Your task to perform on an android device: toggle location history Image 0: 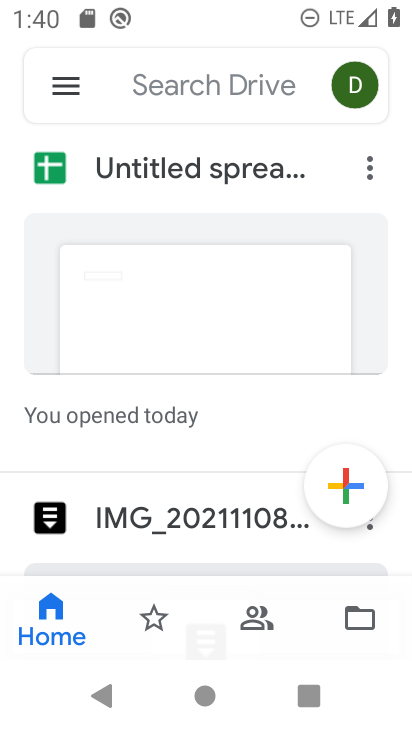
Step 0: press home button
Your task to perform on an android device: toggle location history Image 1: 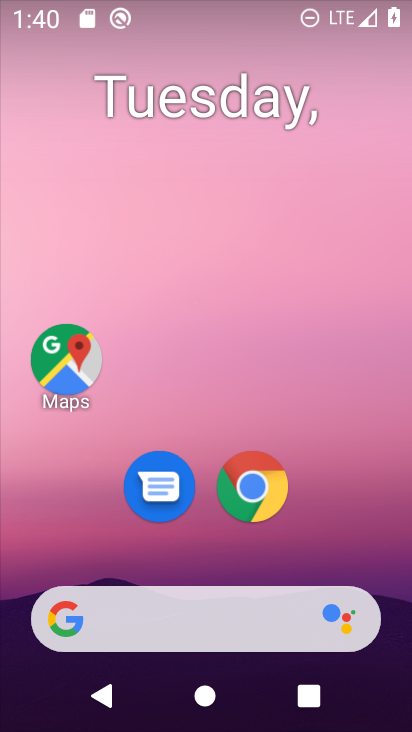
Step 1: drag from (246, 549) to (264, 156)
Your task to perform on an android device: toggle location history Image 2: 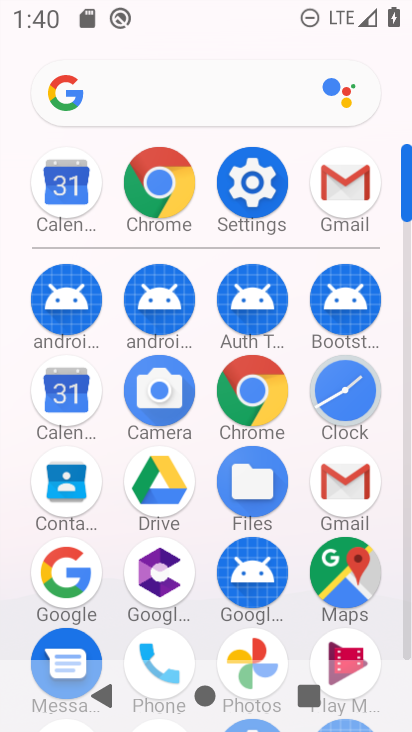
Step 2: drag from (194, 255) to (213, 117)
Your task to perform on an android device: toggle location history Image 3: 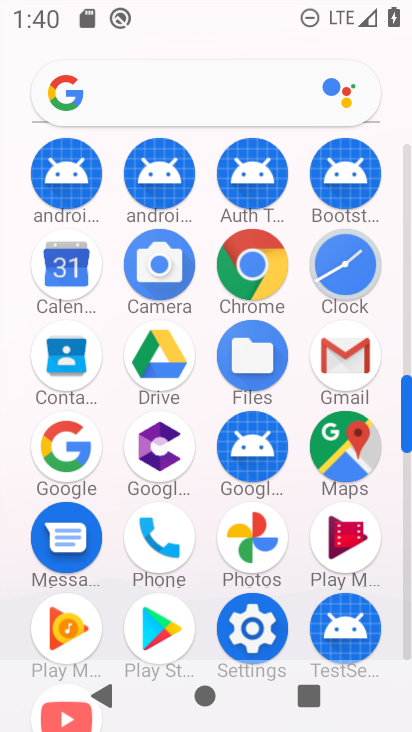
Step 3: click (244, 632)
Your task to perform on an android device: toggle location history Image 4: 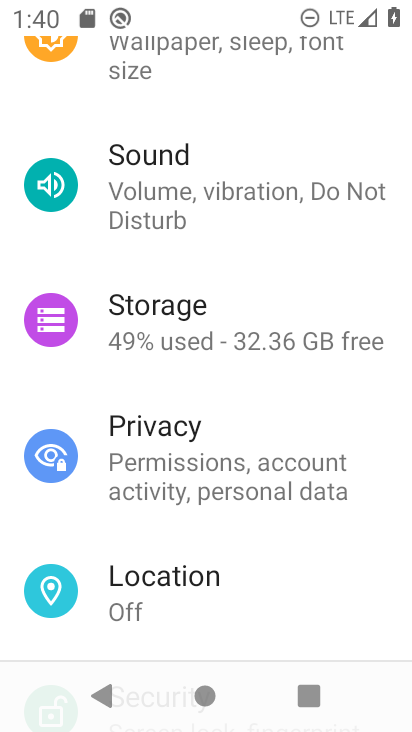
Step 4: click (194, 583)
Your task to perform on an android device: toggle location history Image 5: 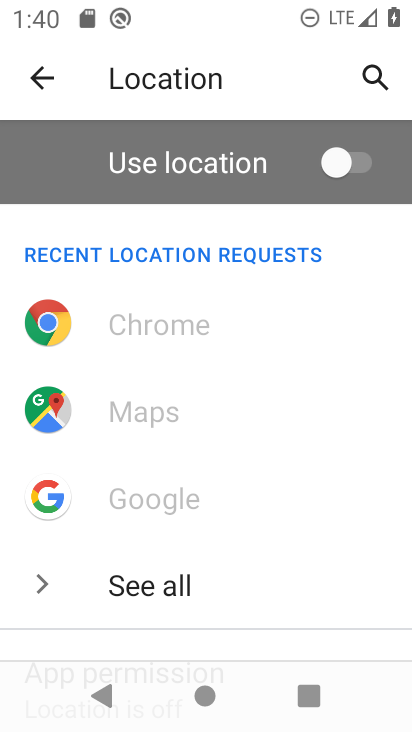
Step 5: drag from (159, 597) to (182, 233)
Your task to perform on an android device: toggle location history Image 6: 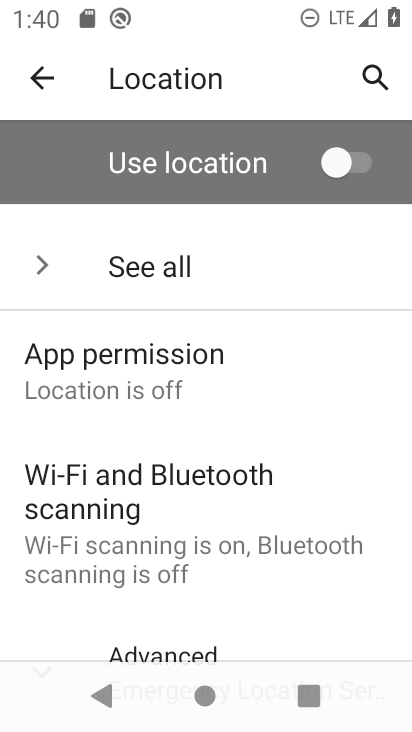
Step 6: drag from (160, 575) to (203, 240)
Your task to perform on an android device: toggle location history Image 7: 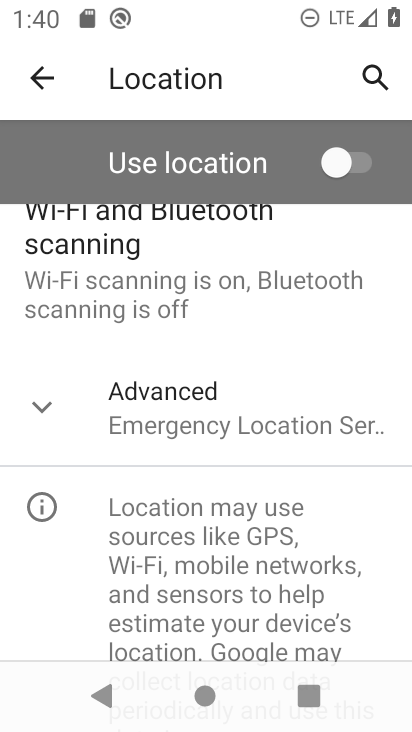
Step 7: click (139, 418)
Your task to perform on an android device: toggle location history Image 8: 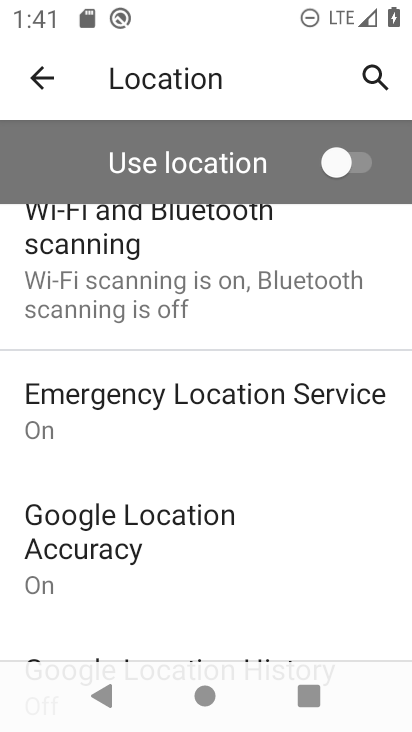
Step 8: drag from (201, 546) to (254, 329)
Your task to perform on an android device: toggle location history Image 9: 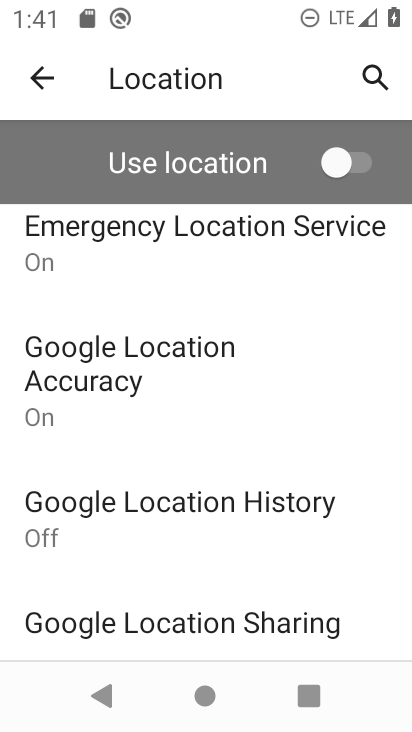
Step 9: click (218, 525)
Your task to perform on an android device: toggle location history Image 10: 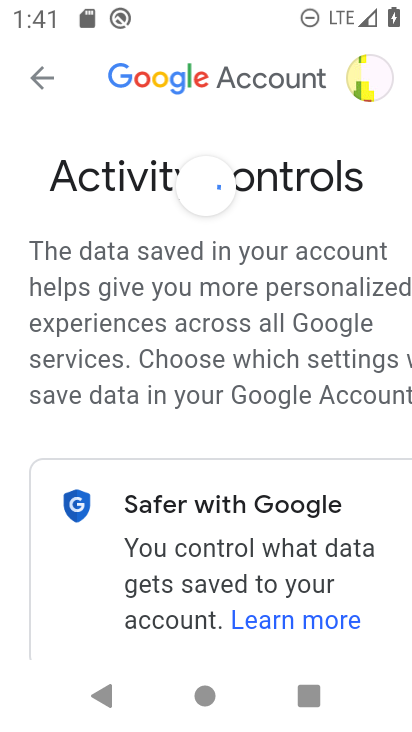
Step 10: drag from (231, 528) to (290, 82)
Your task to perform on an android device: toggle location history Image 11: 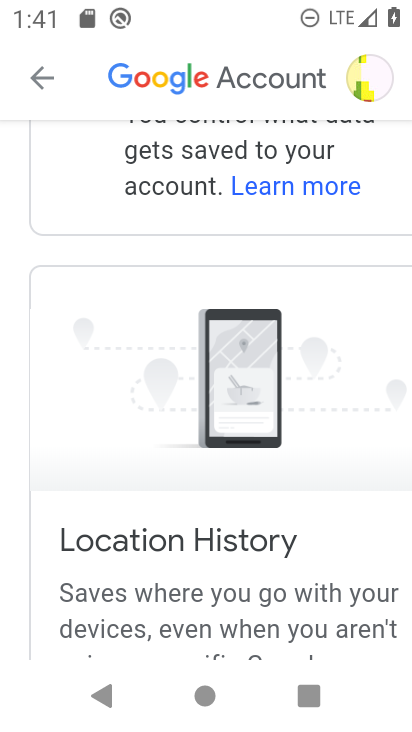
Step 11: drag from (210, 514) to (194, 138)
Your task to perform on an android device: toggle location history Image 12: 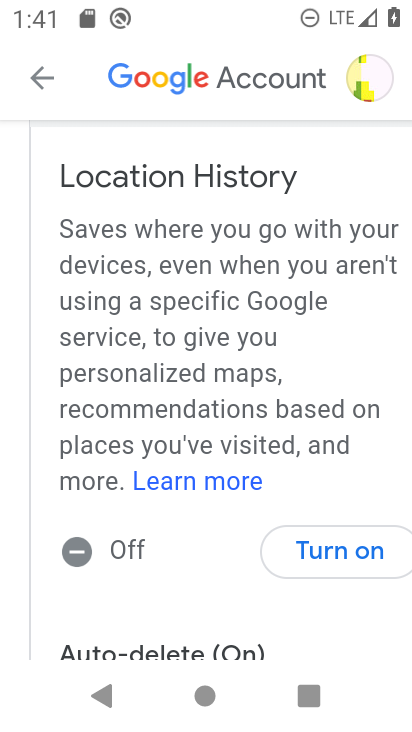
Step 12: click (310, 550)
Your task to perform on an android device: toggle location history Image 13: 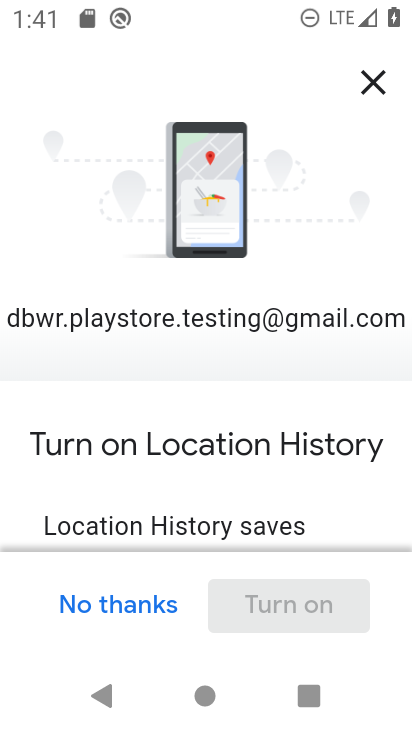
Step 13: drag from (246, 490) to (256, 33)
Your task to perform on an android device: toggle location history Image 14: 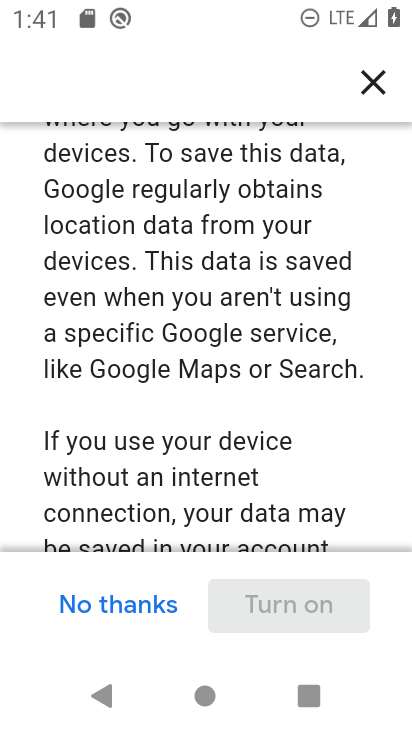
Step 14: drag from (184, 430) to (239, 24)
Your task to perform on an android device: toggle location history Image 15: 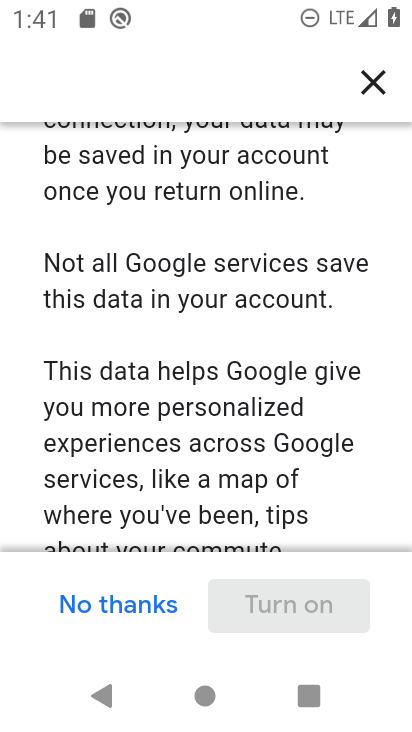
Step 15: drag from (199, 509) to (181, 118)
Your task to perform on an android device: toggle location history Image 16: 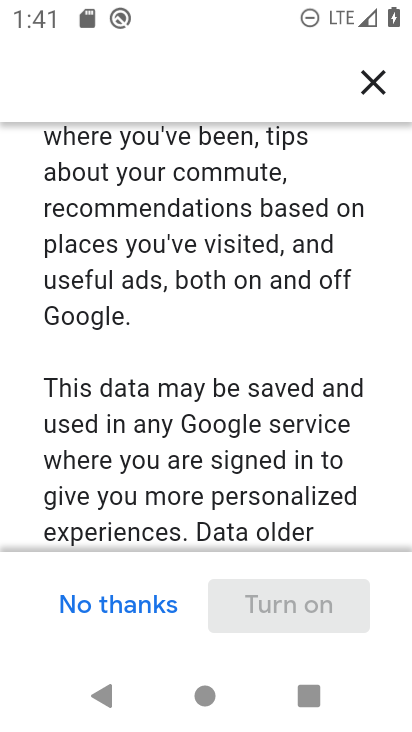
Step 16: drag from (142, 488) to (231, 73)
Your task to perform on an android device: toggle location history Image 17: 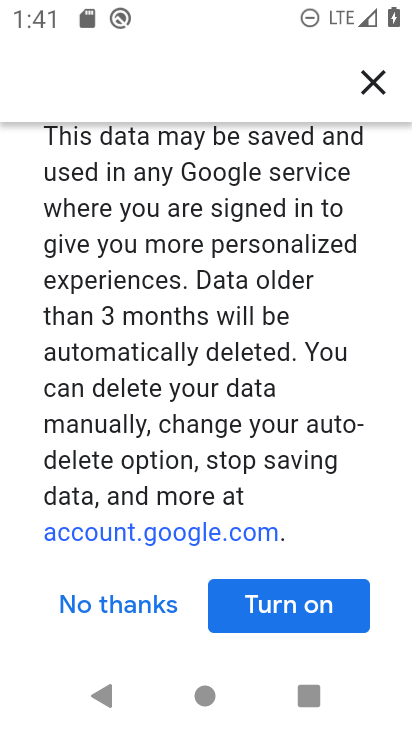
Step 17: click (260, 597)
Your task to perform on an android device: toggle location history Image 18: 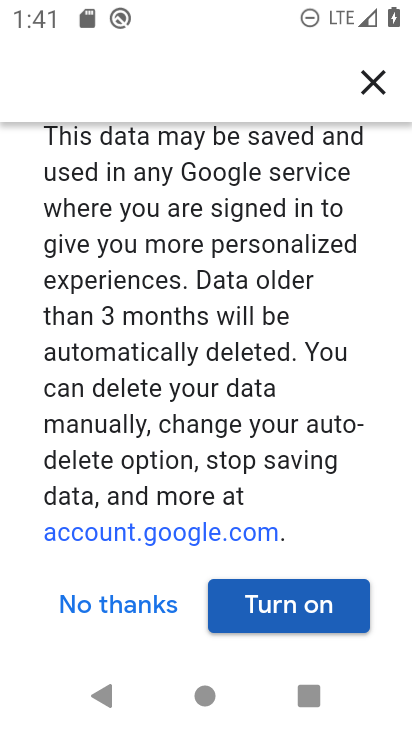
Step 18: click (237, 613)
Your task to perform on an android device: toggle location history Image 19: 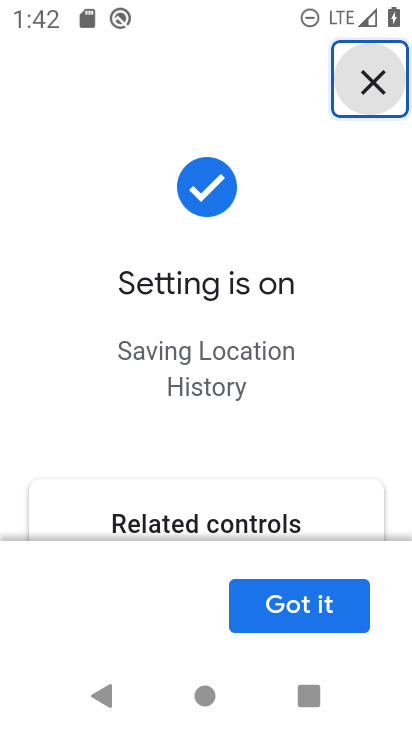
Step 19: click (304, 614)
Your task to perform on an android device: toggle location history Image 20: 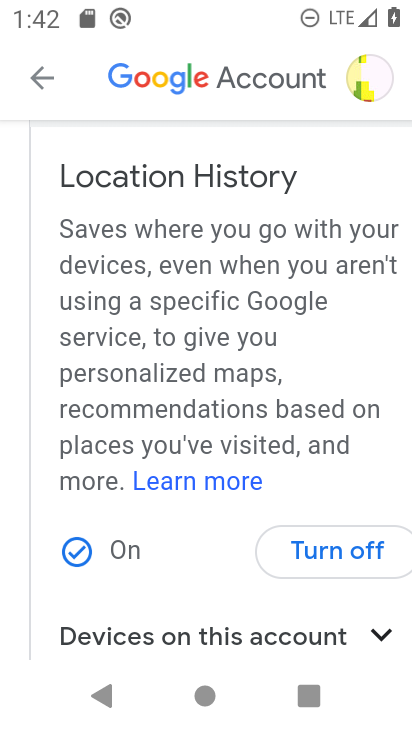
Step 20: task complete